Your task to perform on an android device: turn off notifications settings in the gmail app Image 0: 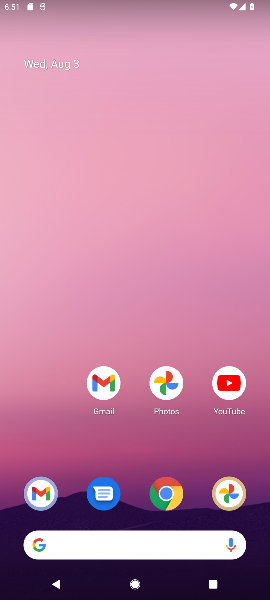
Step 0: drag from (134, 498) to (150, 98)
Your task to perform on an android device: turn off notifications settings in the gmail app Image 1: 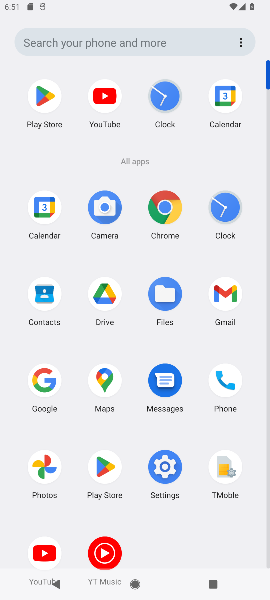
Step 1: click (230, 299)
Your task to perform on an android device: turn off notifications settings in the gmail app Image 2: 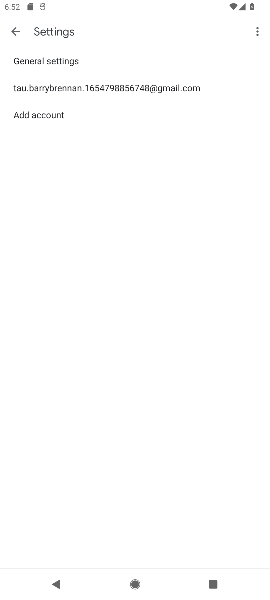
Step 2: click (47, 64)
Your task to perform on an android device: turn off notifications settings in the gmail app Image 3: 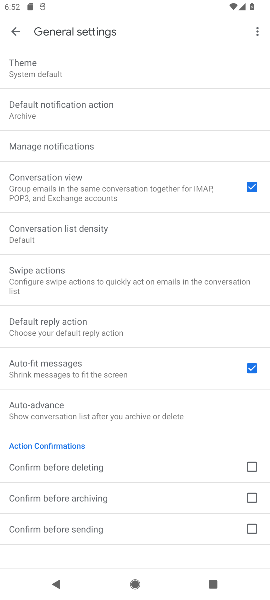
Step 3: click (64, 109)
Your task to perform on an android device: turn off notifications settings in the gmail app Image 4: 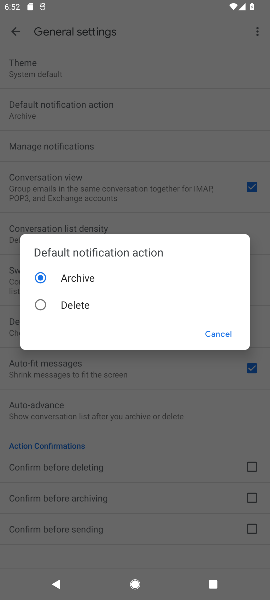
Step 4: click (216, 334)
Your task to perform on an android device: turn off notifications settings in the gmail app Image 5: 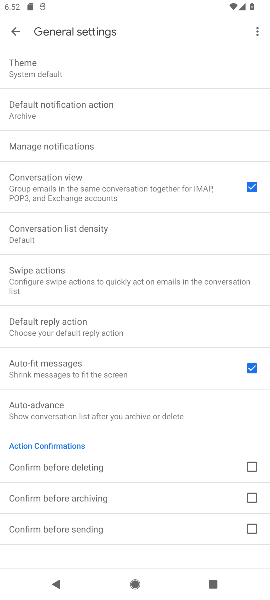
Step 5: click (11, 34)
Your task to perform on an android device: turn off notifications settings in the gmail app Image 6: 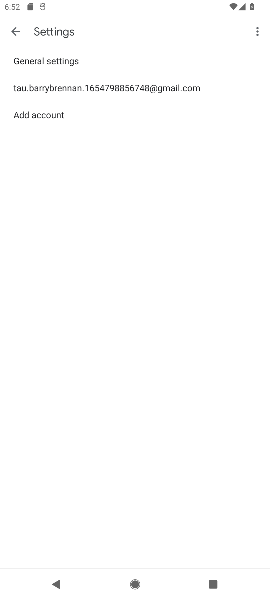
Step 6: click (58, 82)
Your task to perform on an android device: turn off notifications settings in the gmail app Image 7: 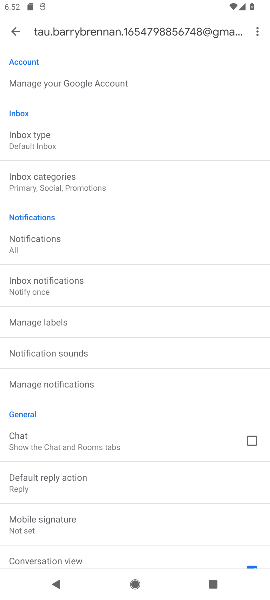
Step 7: click (74, 242)
Your task to perform on an android device: turn off notifications settings in the gmail app Image 8: 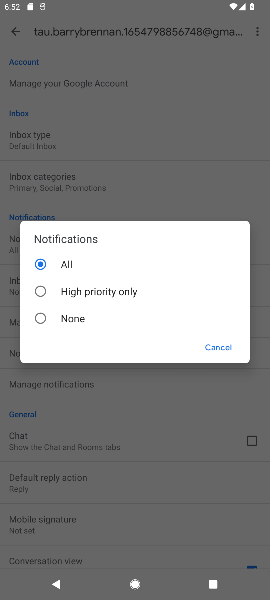
Step 8: click (53, 317)
Your task to perform on an android device: turn off notifications settings in the gmail app Image 9: 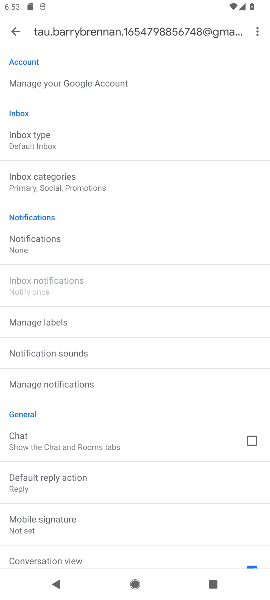
Step 9: task complete